Your task to perform on an android device: turn off picture-in-picture Image 0: 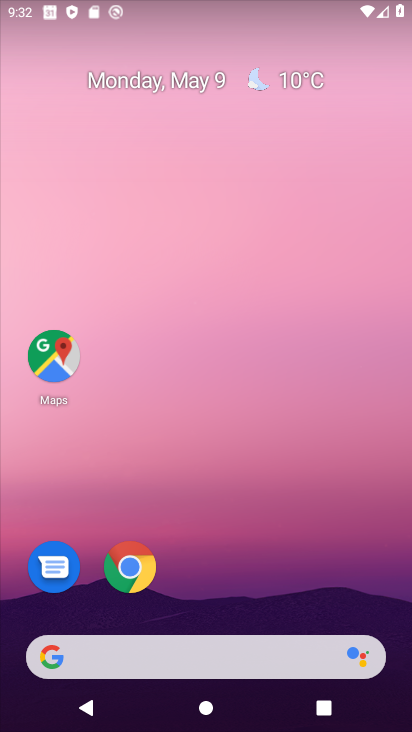
Step 0: click (124, 559)
Your task to perform on an android device: turn off picture-in-picture Image 1: 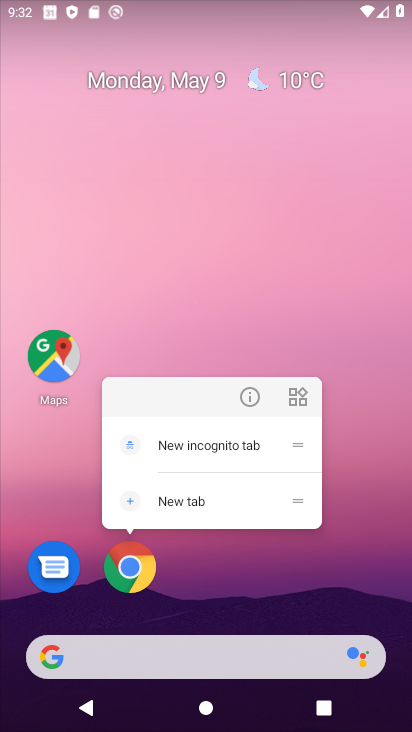
Step 1: click (248, 394)
Your task to perform on an android device: turn off picture-in-picture Image 2: 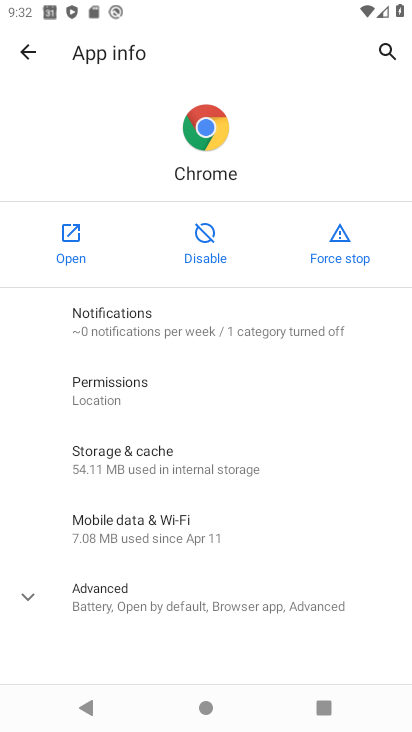
Step 2: drag from (192, 572) to (213, 408)
Your task to perform on an android device: turn off picture-in-picture Image 3: 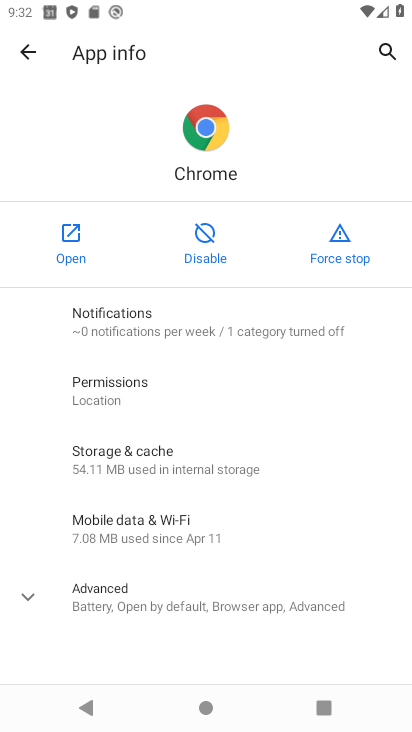
Step 3: click (22, 597)
Your task to perform on an android device: turn off picture-in-picture Image 4: 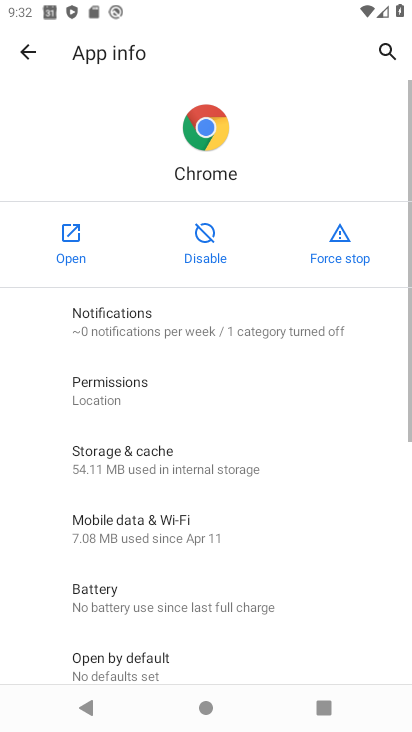
Step 4: drag from (159, 586) to (217, 206)
Your task to perform on an android device: turn off picture-in-picture Image 5: 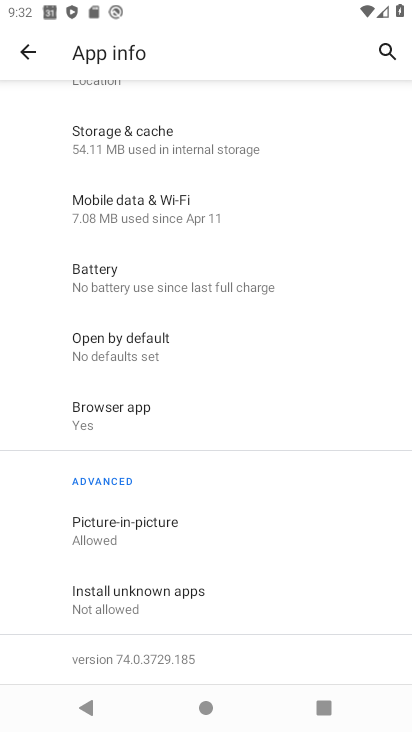
Step 5: click (145, 530)
Your task to perform on an android device: turn off picture-in-picture Image 6: 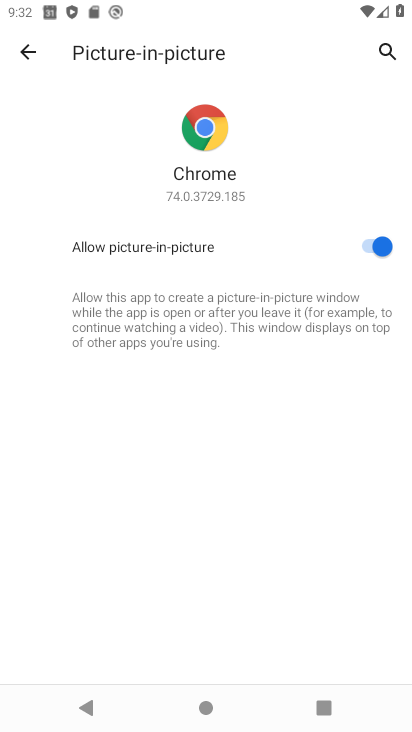
Step 6: click (370, 248)
Your task to perform on an android device: turn off picture-in-picture Image 7: 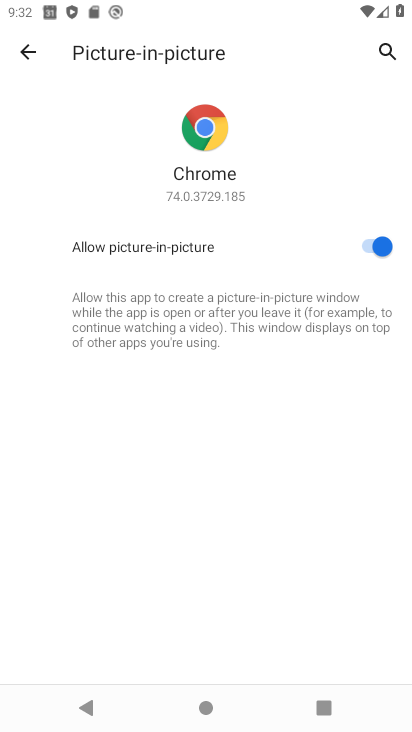
Step 7: click (372, 248)
Your task to perform on an android device: turn off picture-in-picture Image 8: 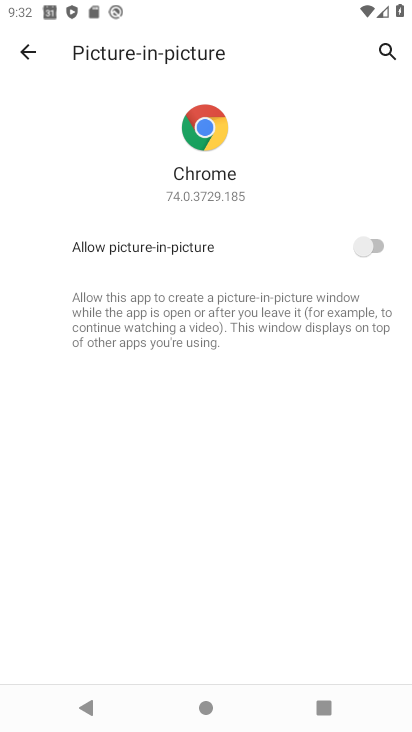
Step 8: task complete